Your task to perform on an android device: Go to Wikipedia Image 0: 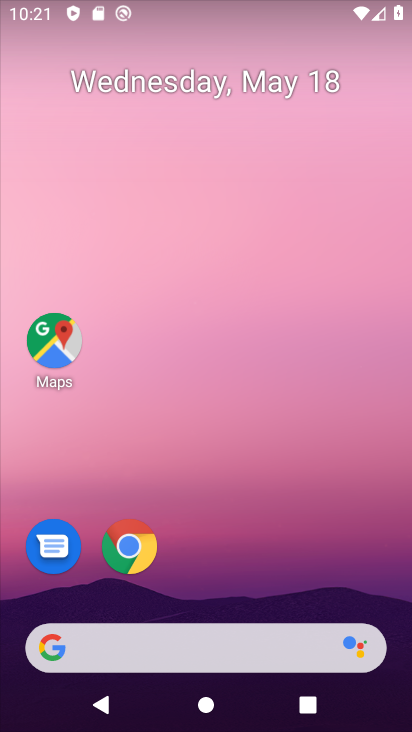
Step 0: click (129, 546)
Your task to perform on an android device: Go to Wikipedia Image 1: 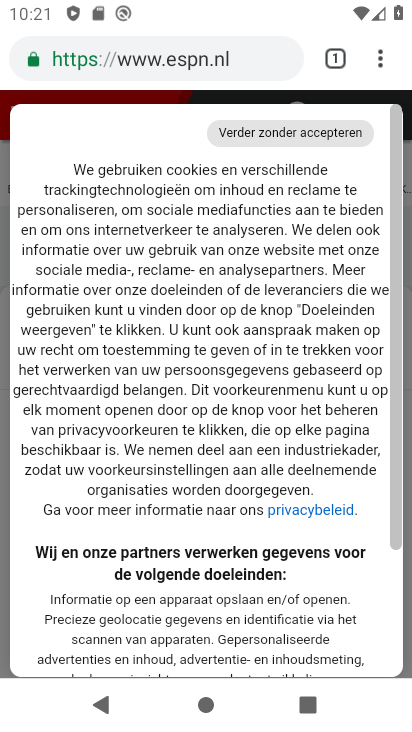
Step 1: click (382, 68)
Your task to perform on an android device: Go to Wikipedia Image 2: 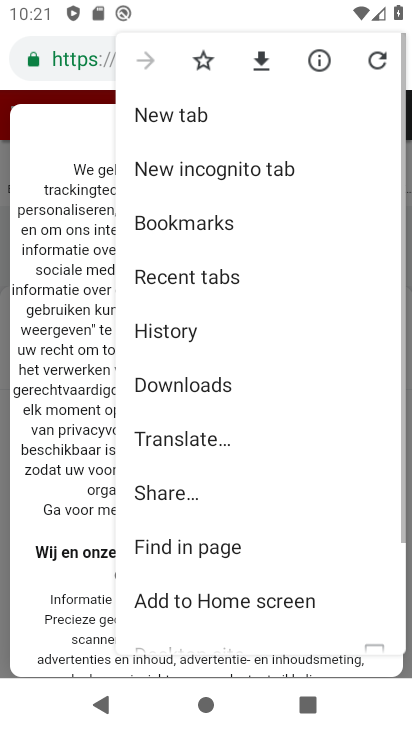
Step 2: click (144, 113)
Your task to perform on an android device: Go to Wikipedia Image 3: 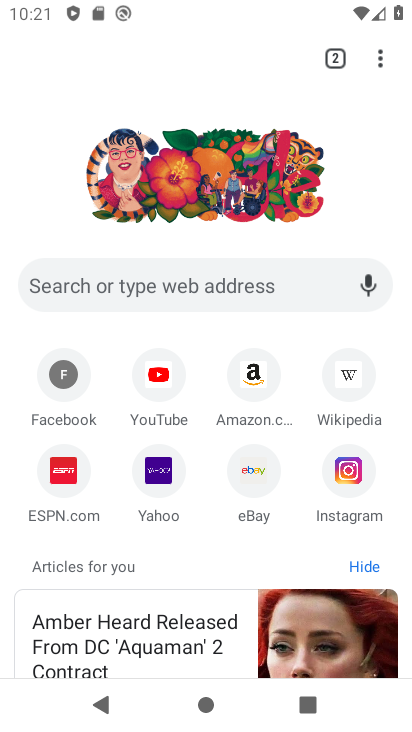
Step 3: click (130, 288)
Your task to perform on an android device: Go to Wikipedia Image 4: 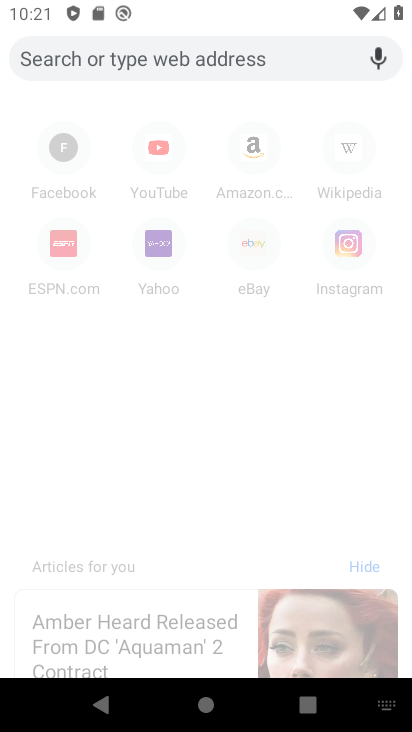
Step 4: type "Wikipedia"
Your task to perform on an android device: Go to Wikipedia Image 5: 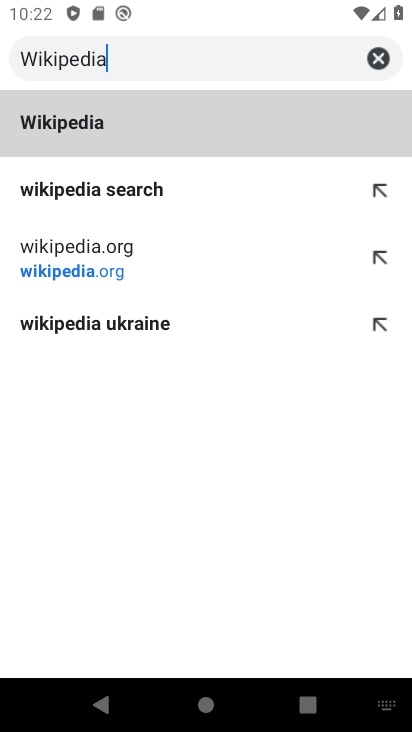
Step 5: click (57, 130)
Your task to perform on an android device: Go to Wikipedia Image 6: 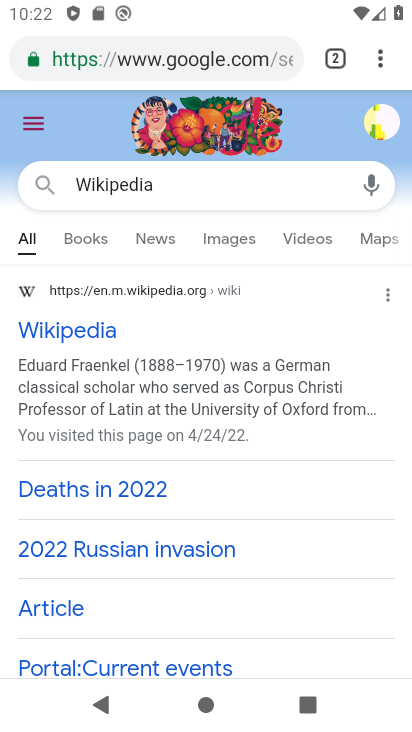
Step 6: click (81, 329)
Your task to perform on an android device: Go to Wikipedia Image 7: 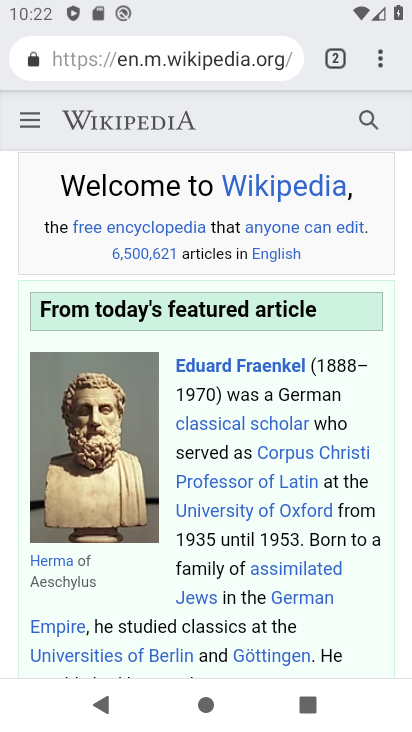
Step 7: task complete